Your task to perform on an android device: Go to battery settings Image 0: 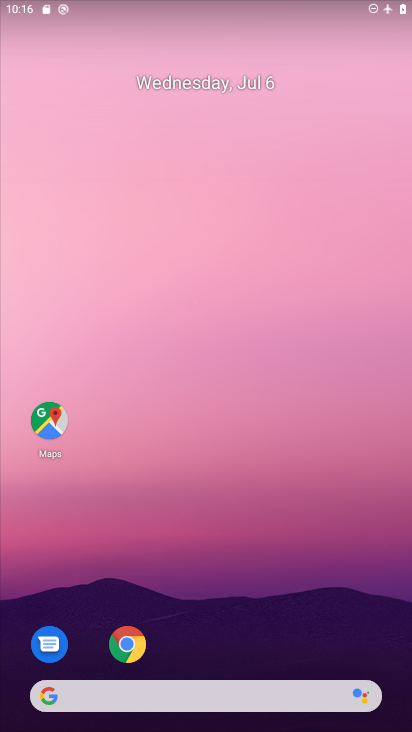
Step 0: click (233, 175)
Your task to perform on an android device: Go to battery settings Image 1: 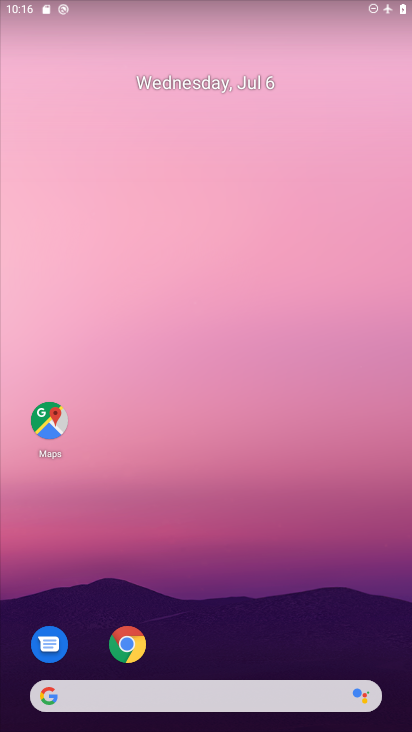
Step 1: drag from (209, 651) to (222, 138)
Your task to perform on an android device: Go to battery settings Image 2: 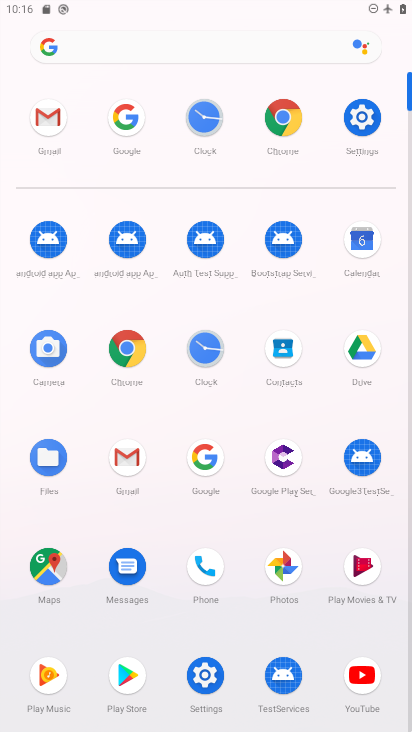
Step 2: click (347, 108)
Your task to perform on an android device: Go to battery settings Image 3: 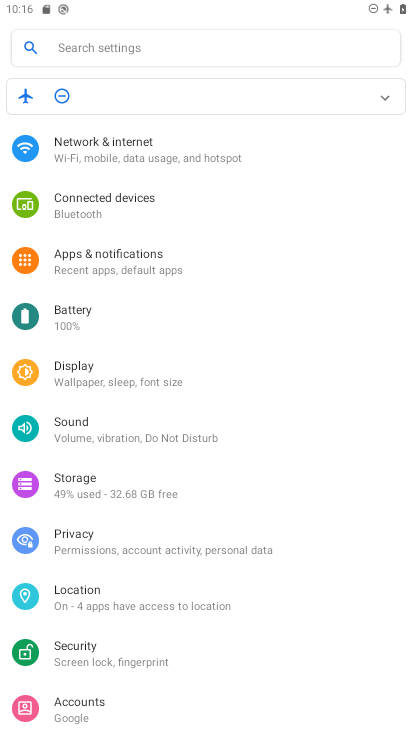
Step 3: click (108, 324)
Your task to perform on an android device: Go to battery settings Image 4: 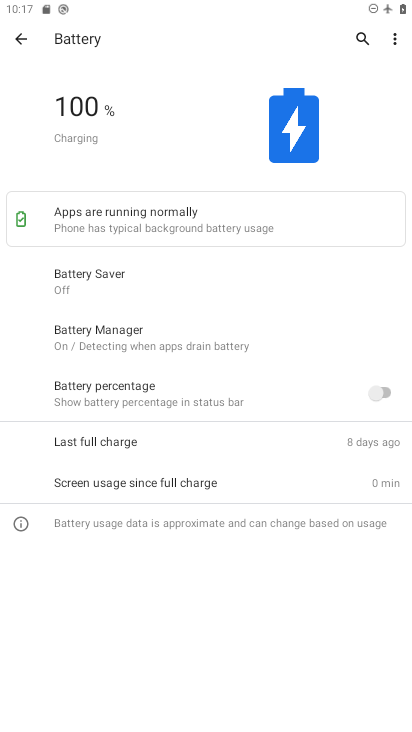
Step 4: task complete